Your task to perform on an android device: set an alarm Image 0: 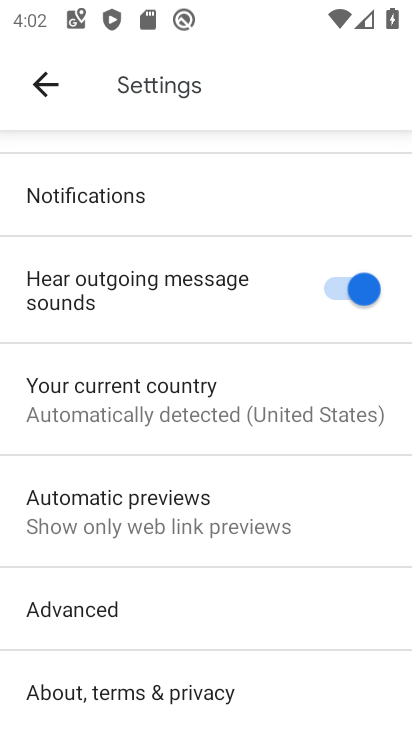
Step 0: press home button
Your task to perform on an android device: set an alarm Image 1: 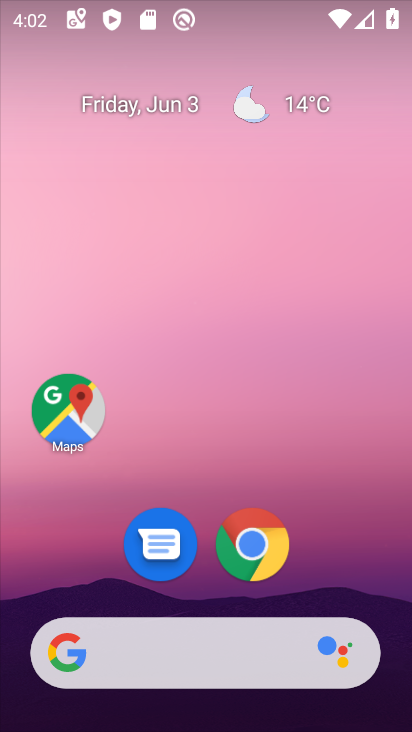
Step 1: drag from (396, 638) to (304, 96)
Your task to perform on an android device: set an alarm Image 2: 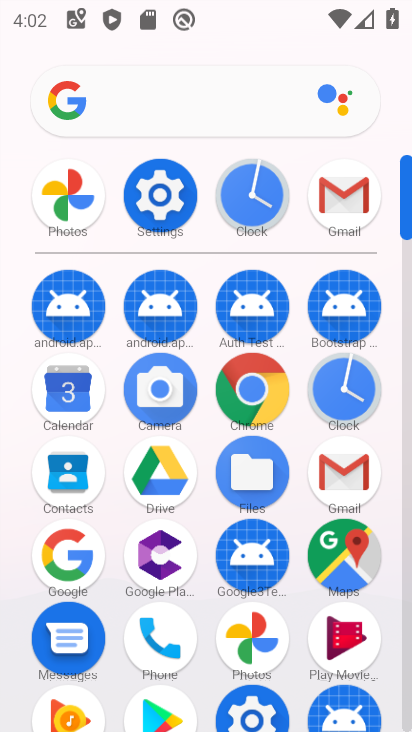
Step 2: click (345, 388)
Your task to perform on an android device: set an alarm Image 3: 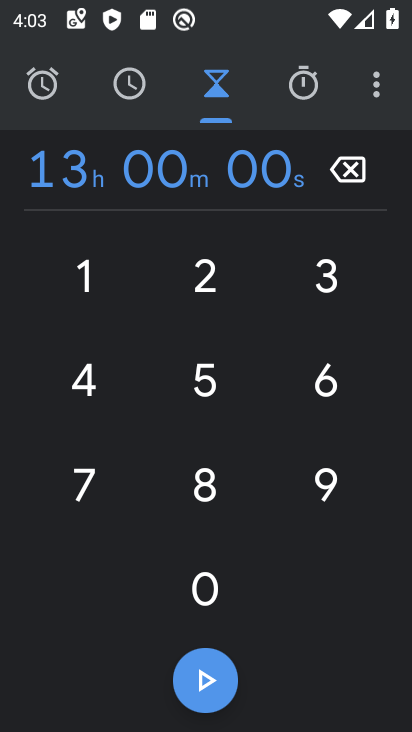
Step 3: click (38, 89)
Your task to perform on an android device: set an alarm Image 4: 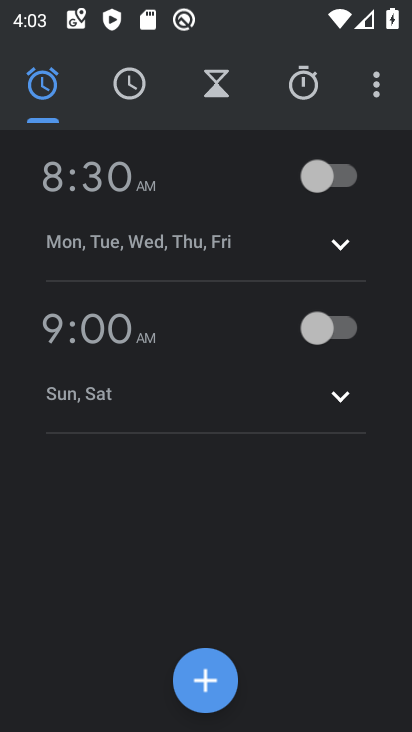
Step 4: click (74, 187)
Your task to perform on an android device: set an alarm Image 5: 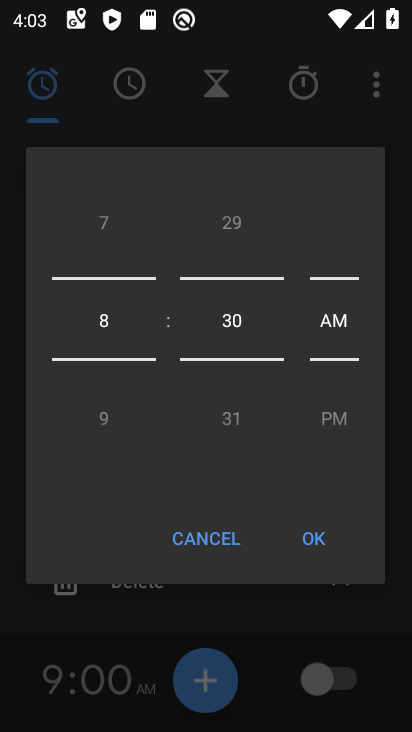
Step 5: drag from (119, 266) to (114, 446)
Your task to perform on an android device: set an alarm Image 6: 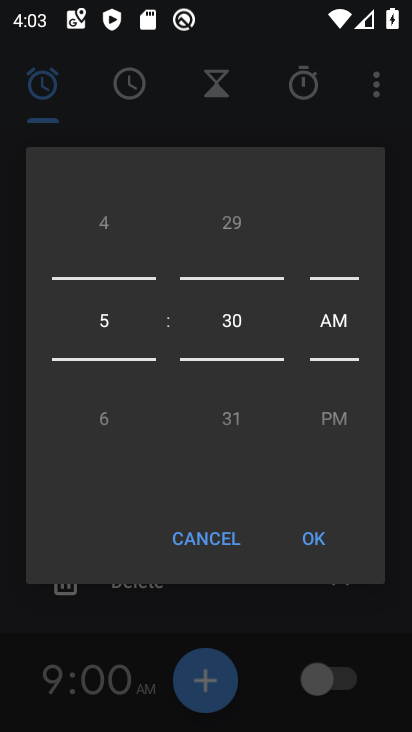
Step 6: click (318, 533)
Your task to perform on an android device: set an alarm Image 7: 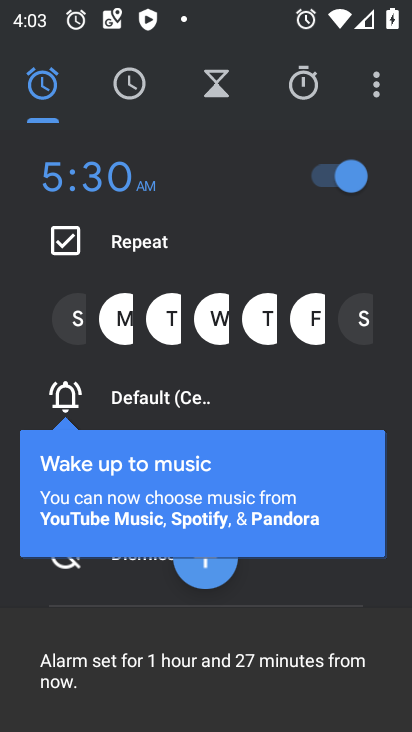
Step 7: click (366, 318)
Your task to perform on an android device: set an alarm Image 8: 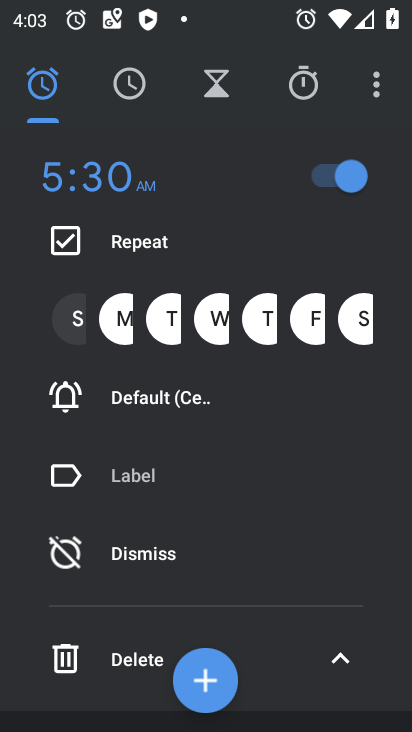
Step 8: click (340, 652)
Your task to perform on an android device: set an alarm Image 9: 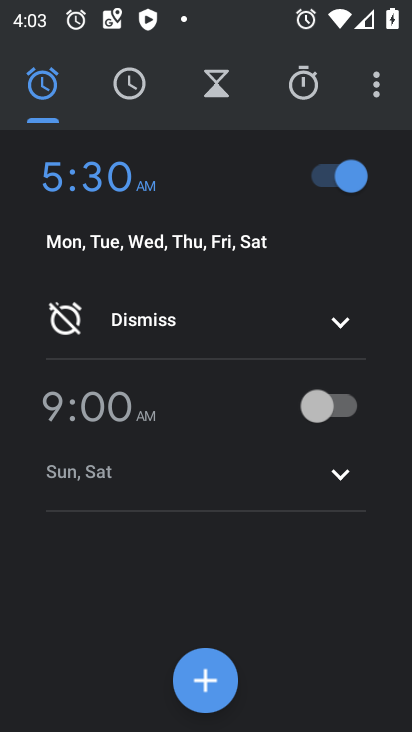
Step 9: task complete